Your task to perform on an android device: Open the calendar and show me this week's events Image 0: 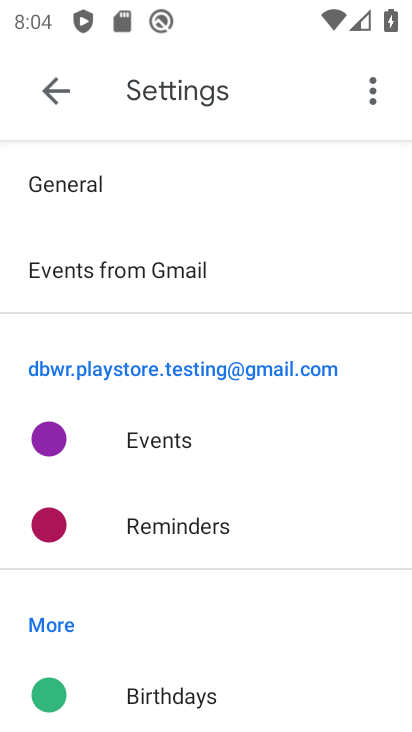
Step 0: press home button
Your task to perform on an android device: Open the calendar and show me this week's events Image 1: 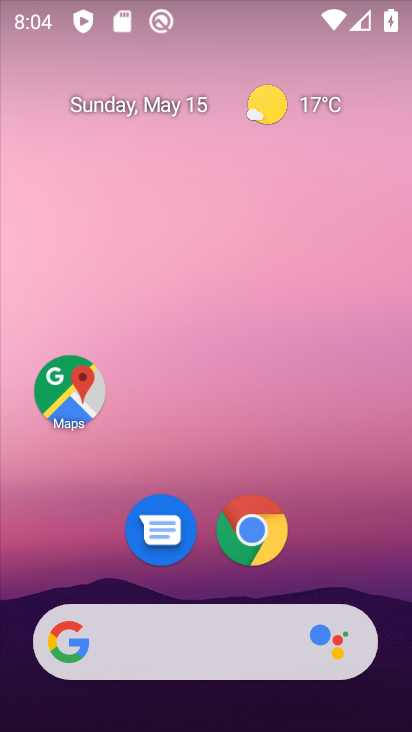
Step 1: drag from (195, 725) to (187, 74)
Your task to perform on an android device: Open the calendar and show me this week's events Image 2: 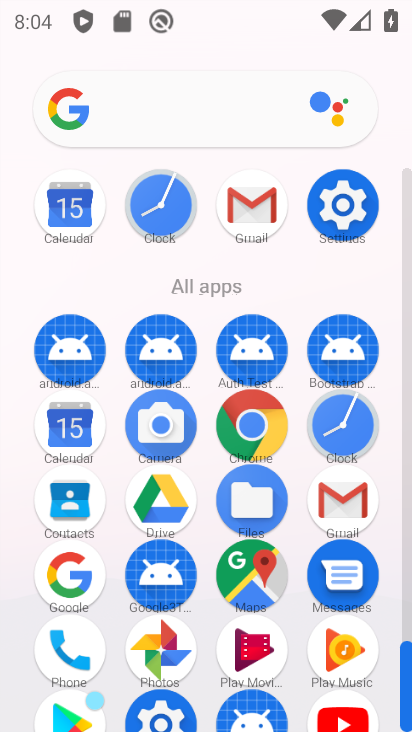
Step 2: click (68, 437)
Your task to perform on an android device: Open the calendar and show me this week's events Image 3: 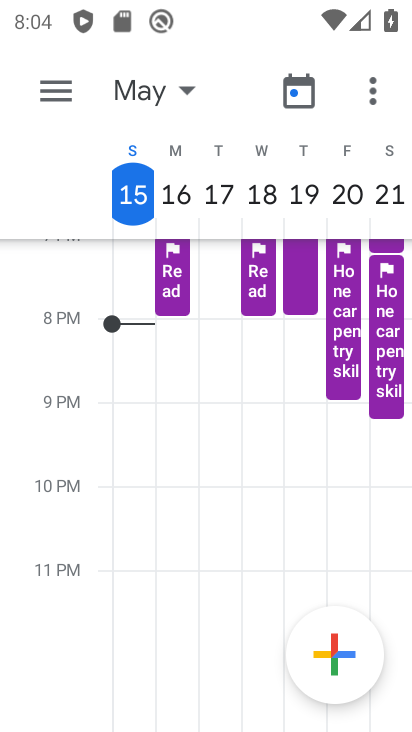
Step 3: task complete